Your task to perform on an android device: Add "razer blade" to the cart on walmart Image 0: 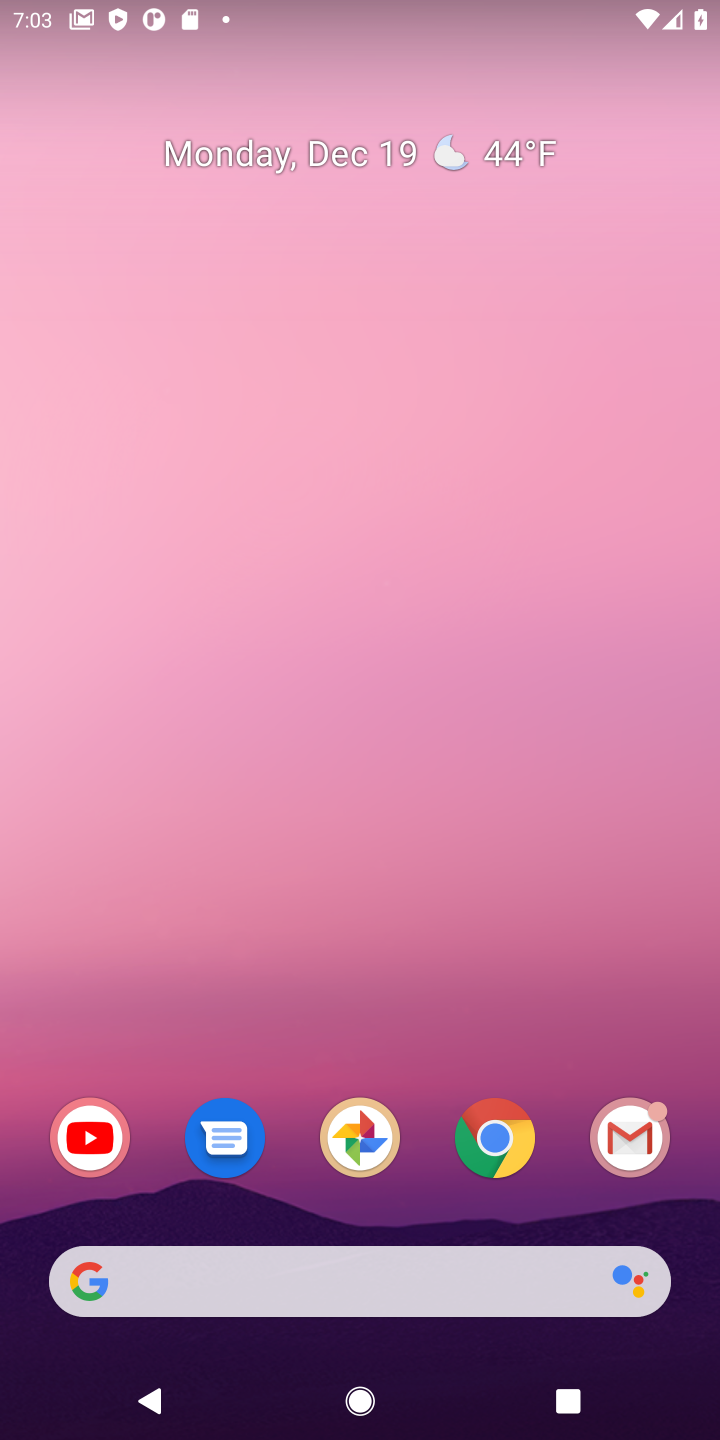
Step 0: click (513, 1145)
Your task to perform on an android device: Add "razer blade" to the cart on walmart Image 1: 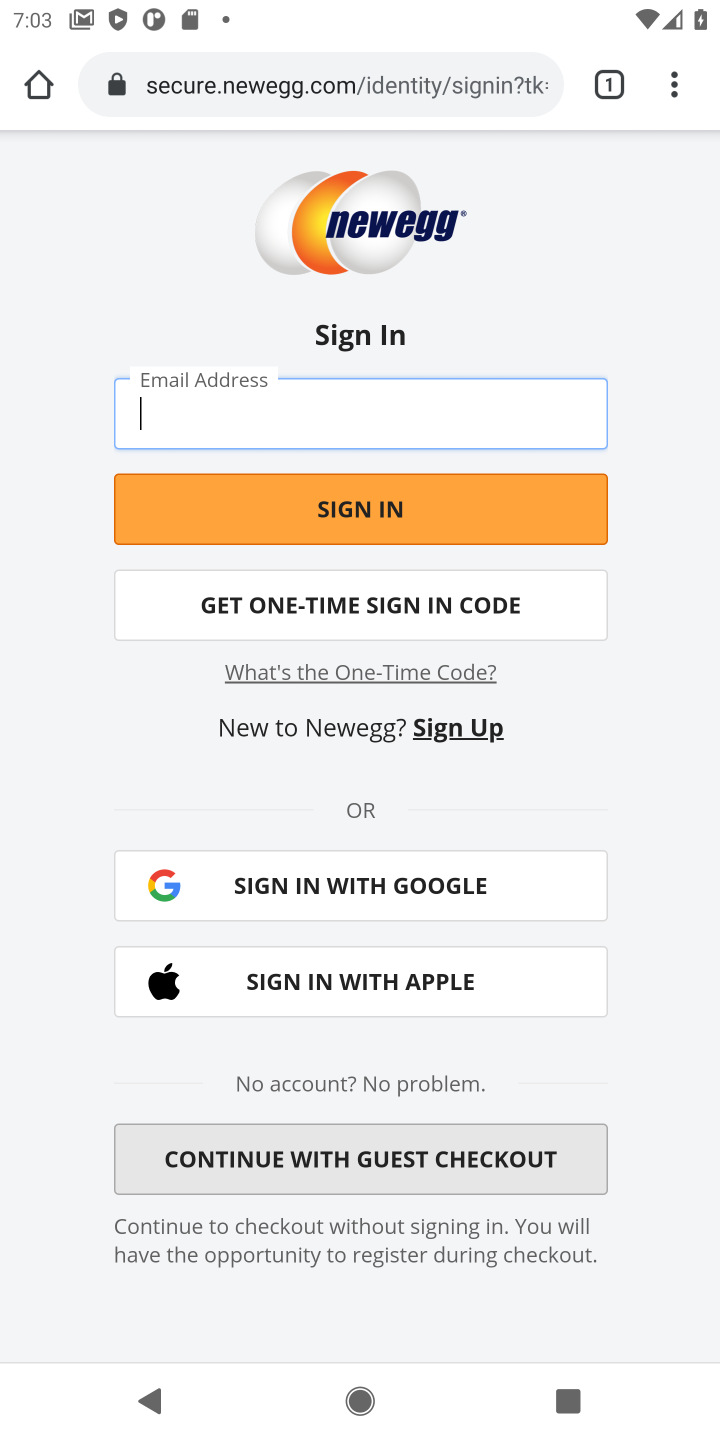
Step 1: click (356, 75)
Your task to perform on an android device: Add "razer blade" to the cart on walmart Image 2: 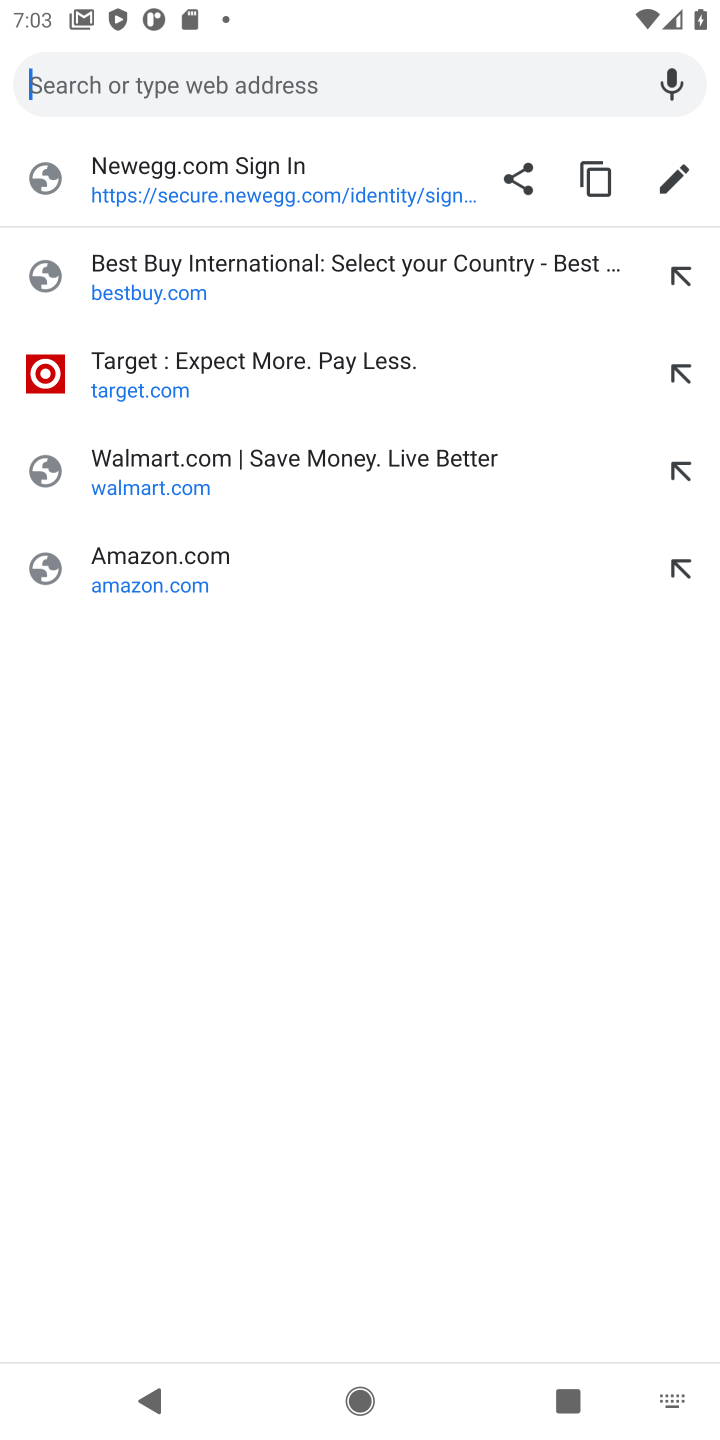
Step 2: click (356, 75)
Your task to perform on an android device: Add "razer blade" to the cart on walmart Image 3: 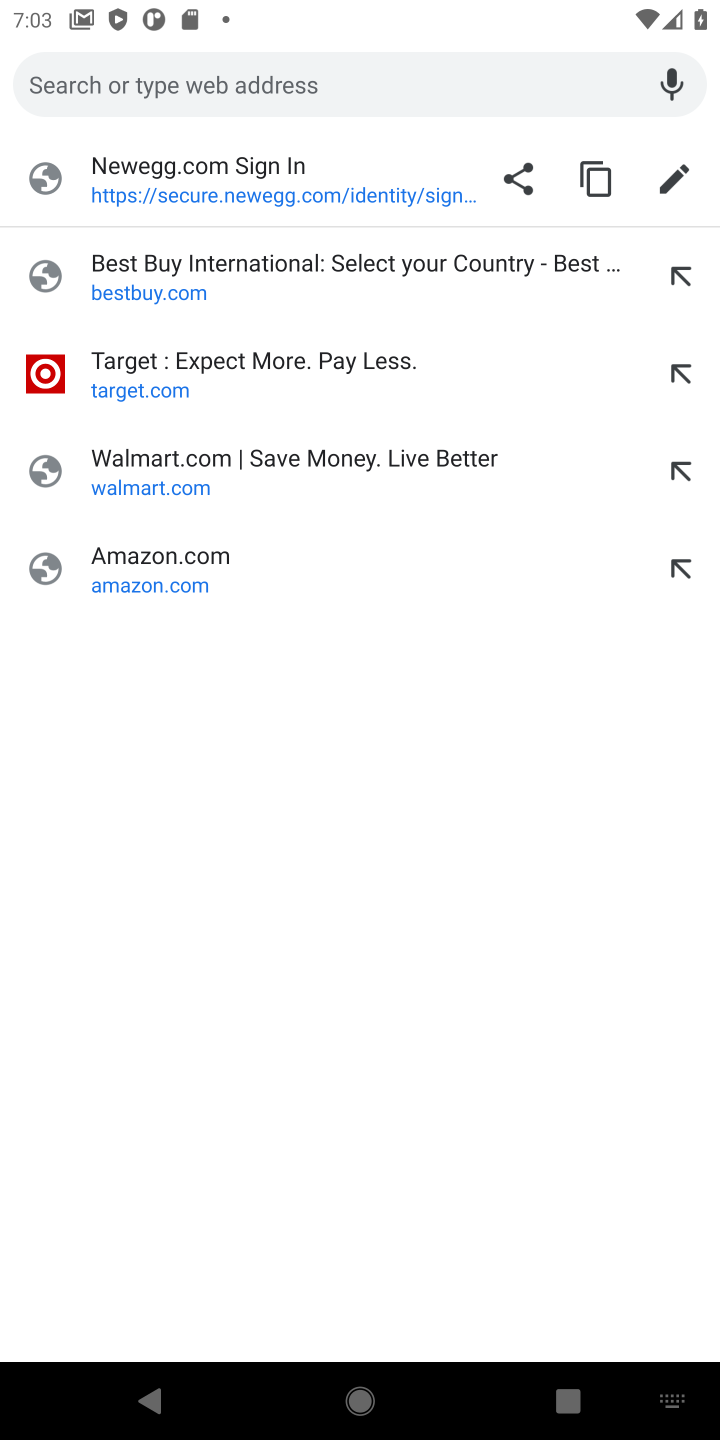
Step 3: type "WALMART"
Your task to perform on an android device: Add "razer blade" to the cart on walmart Image 4: 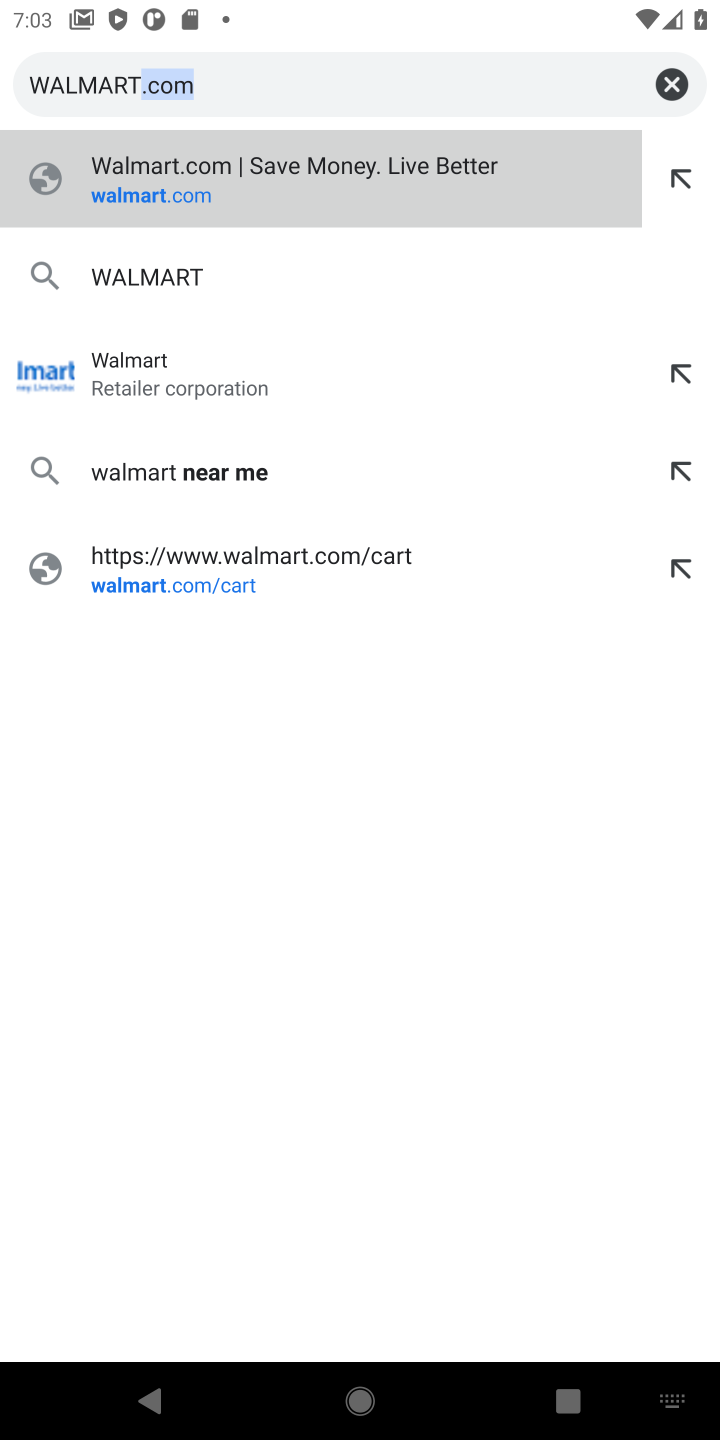
Step 4: click (324, 187)
Your task to perform on an android device: Add "razer blade" to the cart on walmart Image 5: 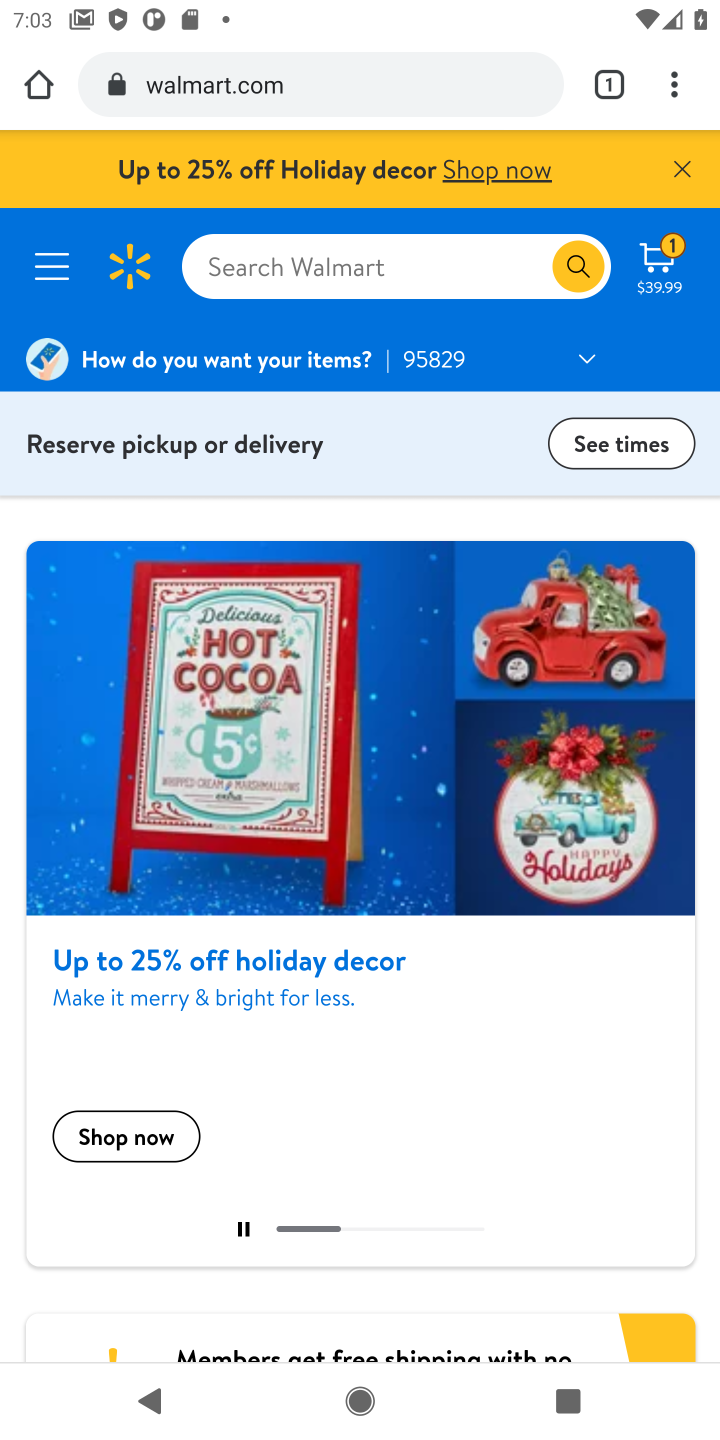
Step 5: click (435, 256)
Your task to perform on an android device: Add "razer blade" to the cart on walmart Image 6: 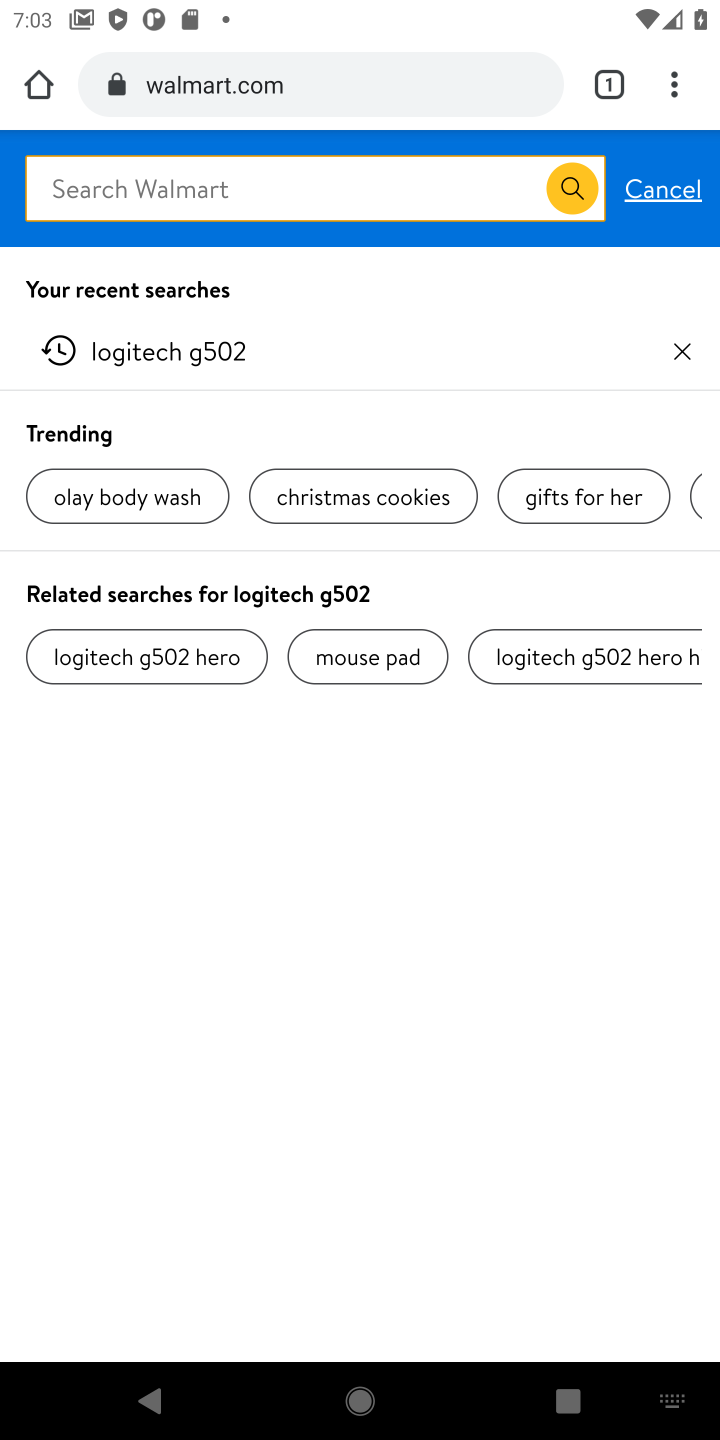
Step 6: type "RAZER BLADE"
Your task to perform on an android device: Add "razer blade" to the cart on walmart Image 7: 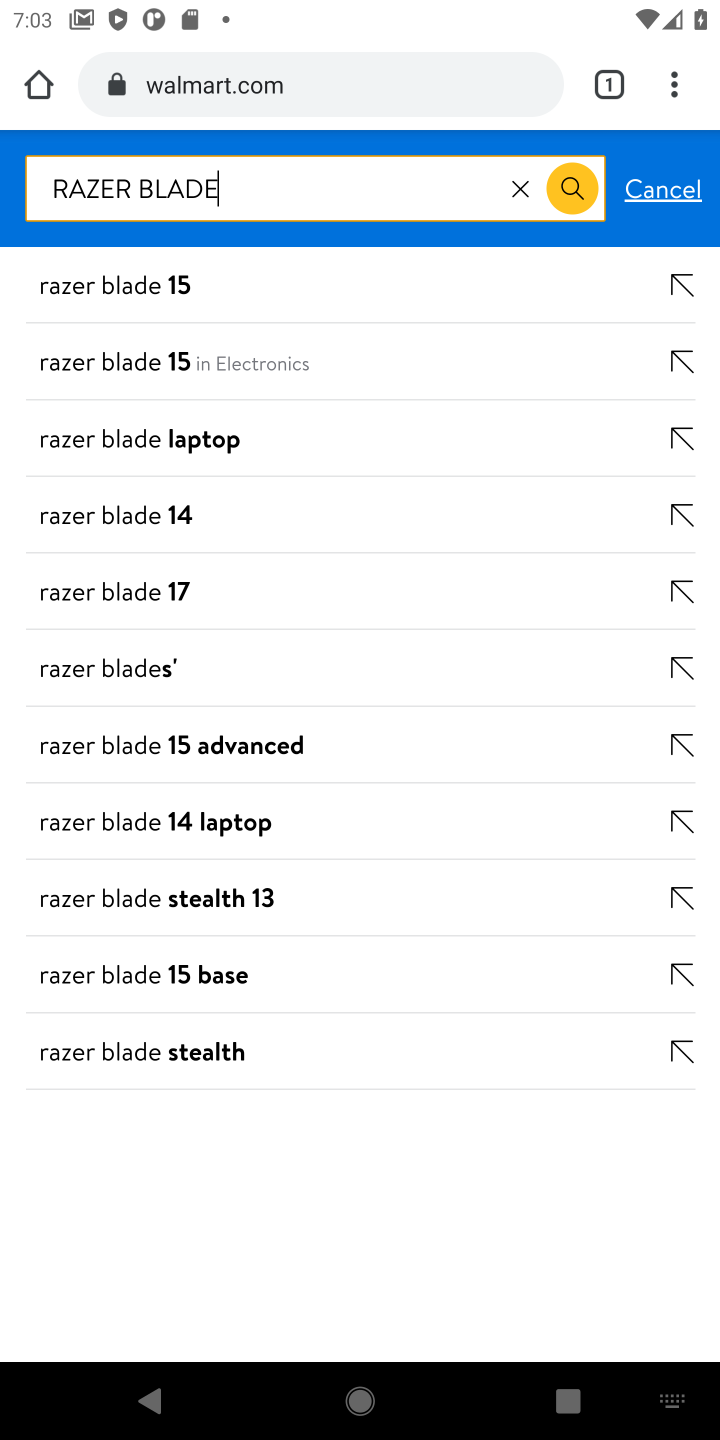
Step 7: click (180, 279)
Your task to perform on an android device: Add "razer blade" to the cart on walmart Image 8: 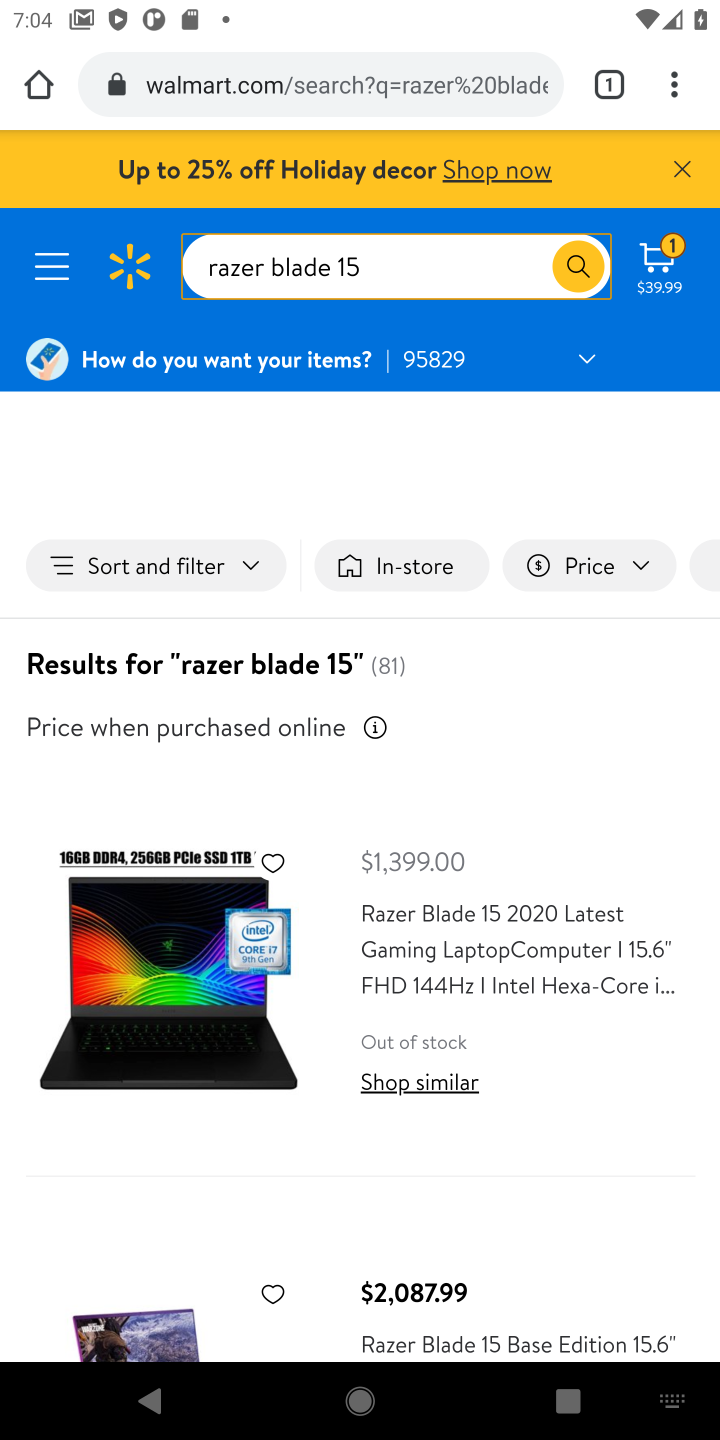
Step 8: click (579, 265)
Your task to perform on an android device: Add "razer blade" to the cart on walmart Image 9: 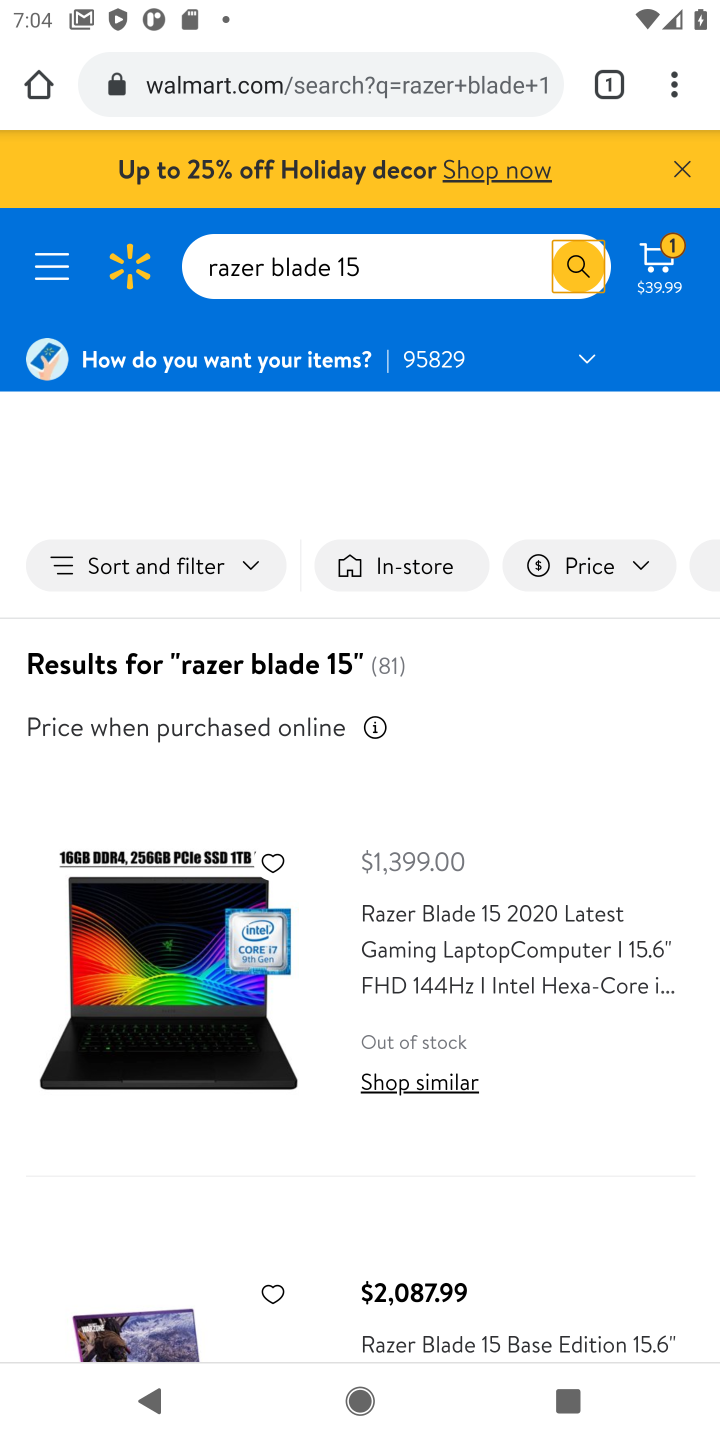
Step 9: click (555, 947)
Your task to perform on an android device: Add "razer blade" to the cart on walmart Image 10: 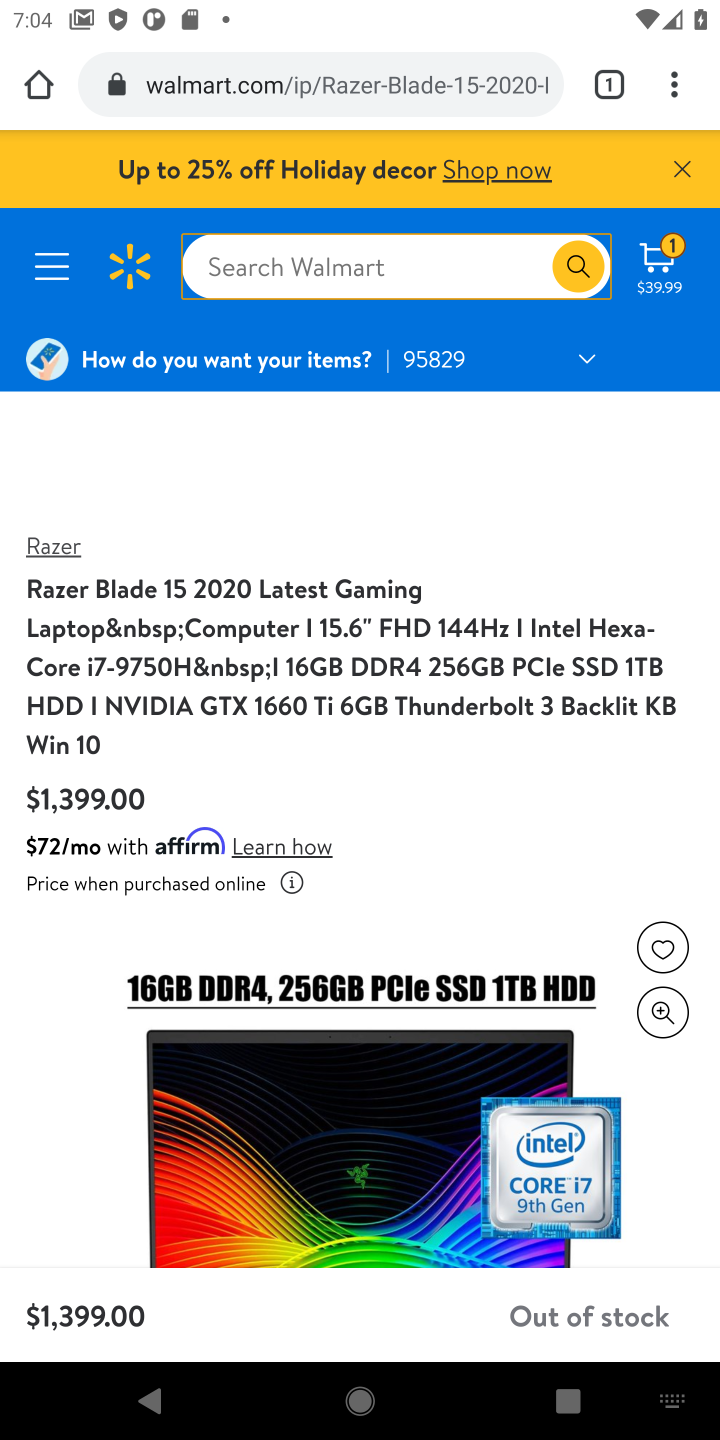
Step 10: task complete